Your task to perform on an android device: turn vacation reply on in the gmail app Image 0: 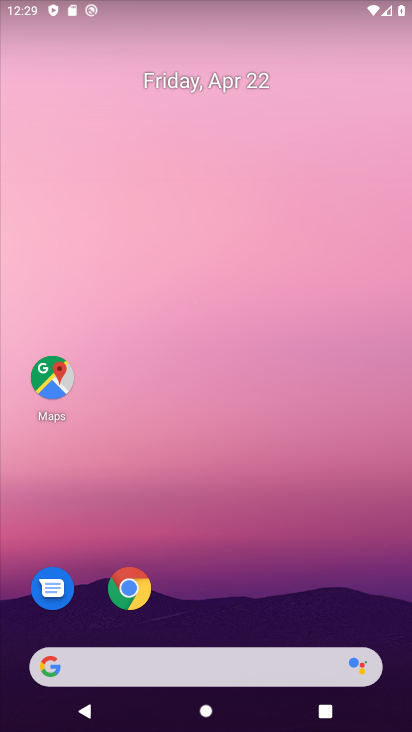
Step 0: drag from (271, 545) to (323, 125)
Your task to perform on an android device: turn vacation reply on in the gmail app Image 1: 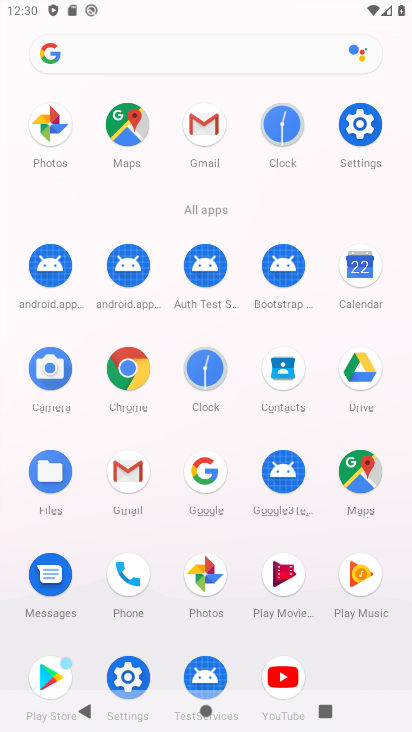
Step 1: click (127, 471)
Your task to perform on an android device: turn vacation reply on in the gmail app Image 2: 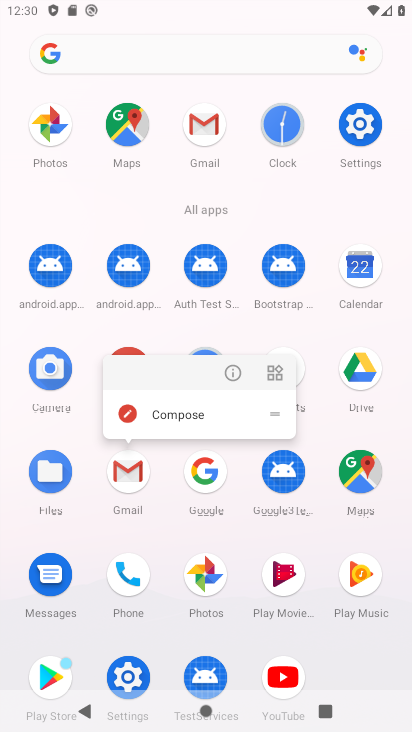
Step 2: click (129, 470)
Your task to perform on an android device: turn vacation reply on in the gmail app Image 3: 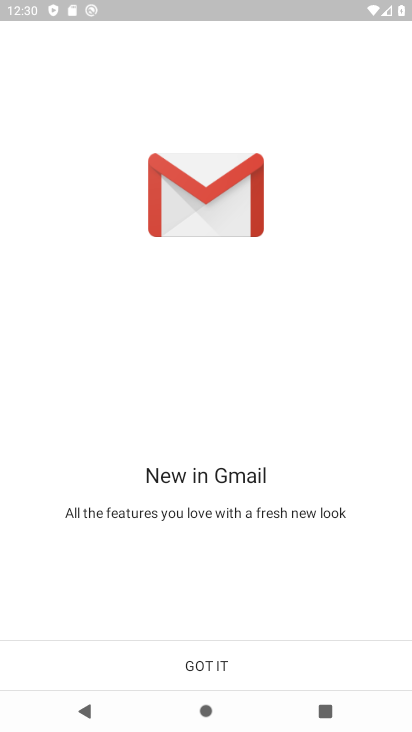
Step 3: click (209, 669)
Your task to perform on an android device: turn vacation reply on in the gmail app Image 4: 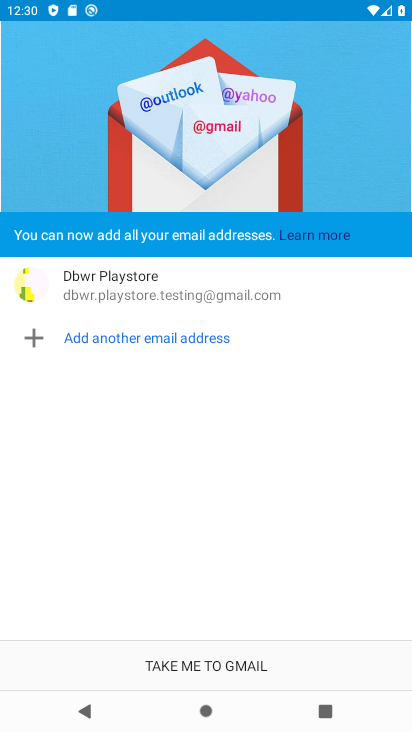
Step 4: click (210, 656)
Your task to perform on an android device: turn vacation reply on in the gmail app Image 5: 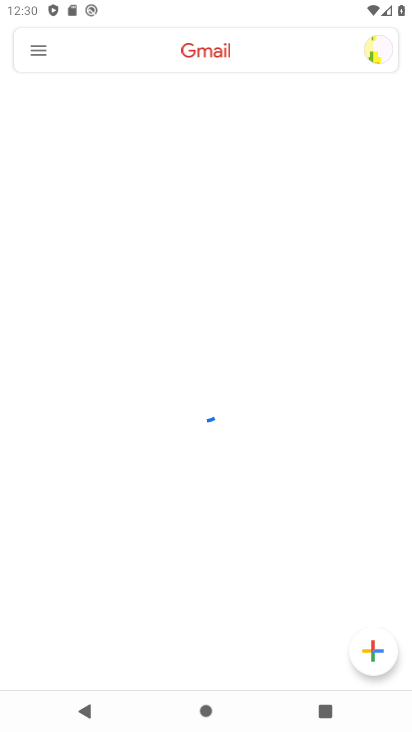
Step 5: click (34, 51)
Your task to perform on an android device: turn vacation reply on in the gmail app Image 6: 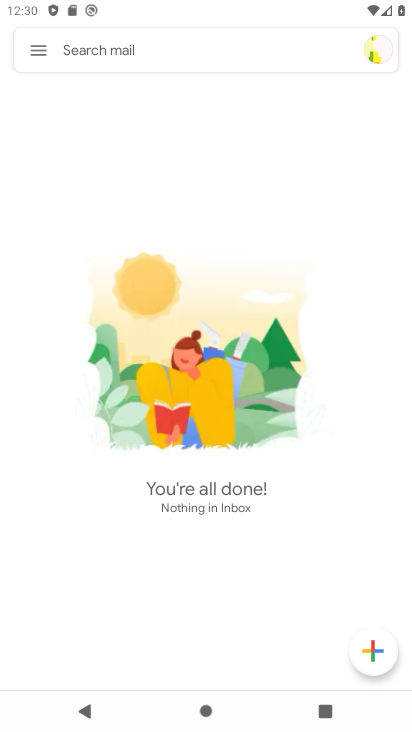
Step 6: click (33, 38)
Your task to perform on an android device: turn vacation reply on in the gmail app Image 7: 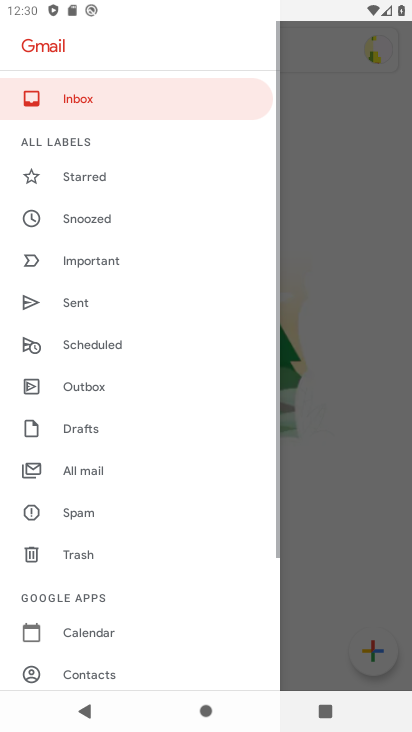
Step 7: drag from (108, 609) to (214, 17)
Your task to perform on an android device: turn vacation reply on in the gmail app Image 8: 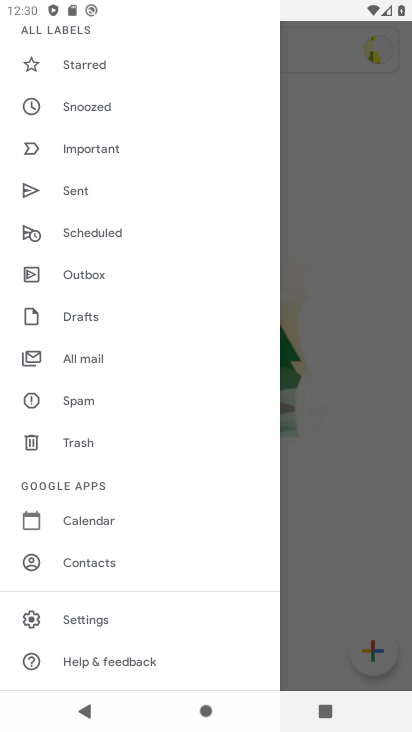
Step 8: click (90, 611)
Your task to perform on an android device: turn vacation reply on in the gmail app Image 9: 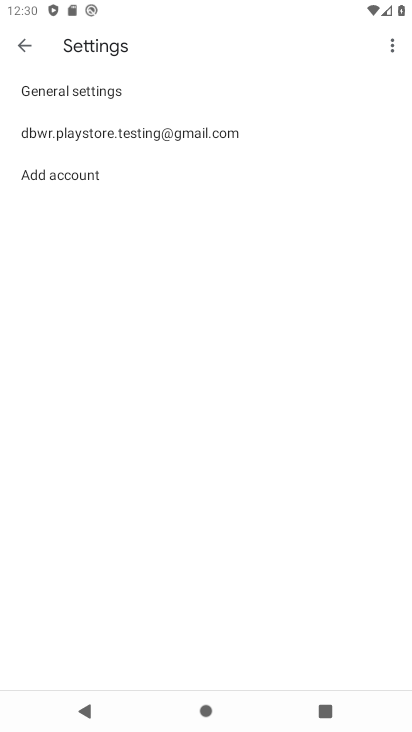
Step 9: click (120, 133)
Your task to perform on an android device: turn vacation reply on in the gmail app Image 10: 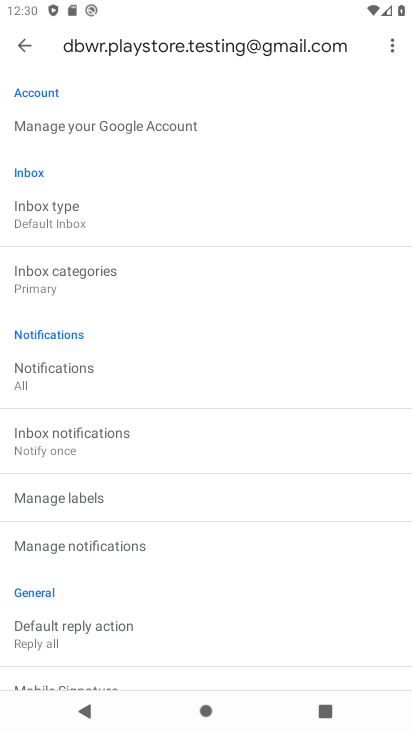
Step 10: drag from (182, 577) to (353, 0)
Your task to perform on an android device: turn vacation reply on in the gmail app Image 11: 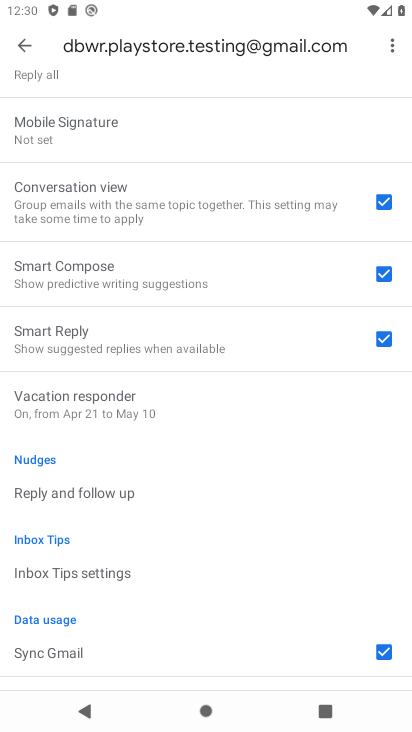
Step 11: click (182, 408)
Your task to perform on an android device: turn vacation reply on in the gmail app Image 12: 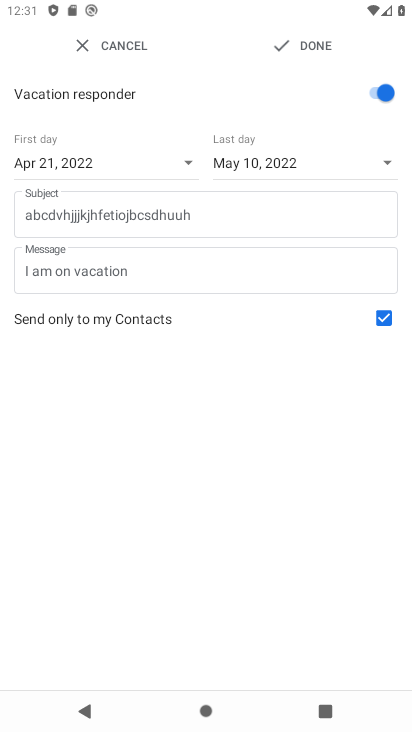
Step 12: task complete